Your task to perform on an android device: star an email in the gmail app Image 0: 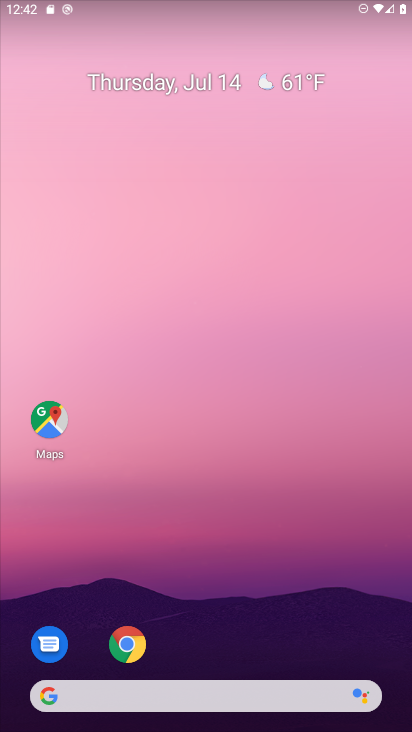
Step 0: drag from (302, 535) to (183, 46)
Your task to perform on an android device: star an email in the gmail app Image 1: 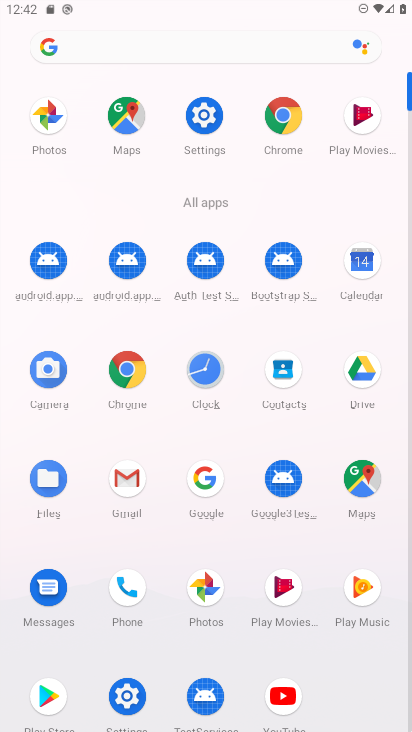
Step 1: click (124, 478)
Your task to perform on an android device: star an email in the gmail app Image 2: 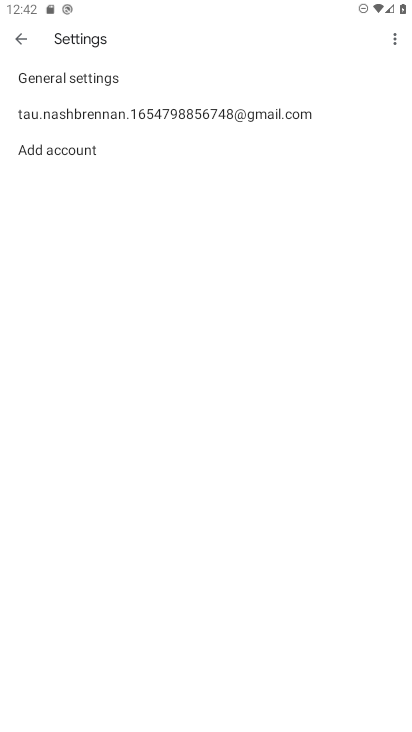
Step 2: click (18, 39)
Your task to perform on an android device: star an email in the gmail app Image 3: 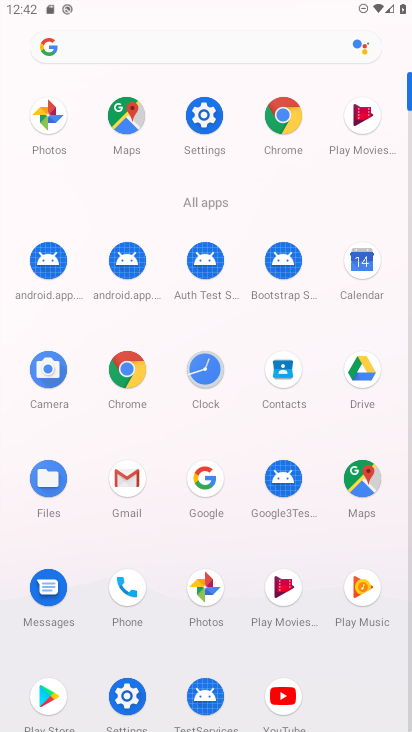
Step 3: click (140, 480)
Your task to perform on an android device: star an email in the gmail app Image 4: 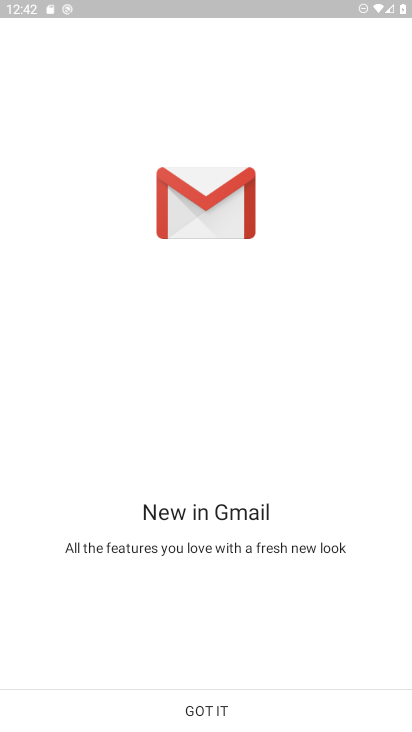
Step 4: click (257, 713)
Your task to perform on an android device: star an email in the gmail app Image 5: 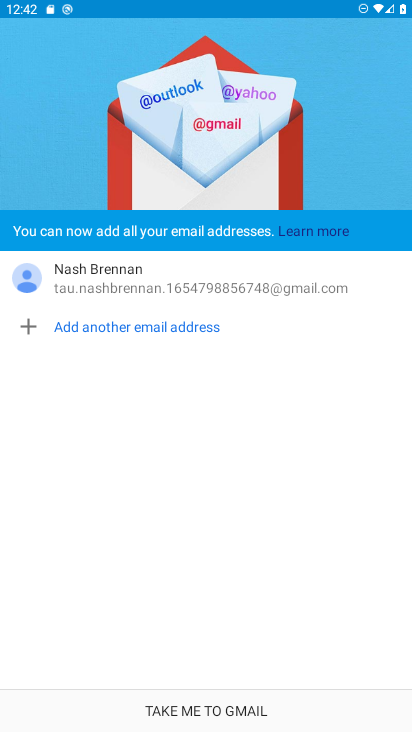
Step 5: click (258, 706)
Your task to perform on an android device: star an email in the gmail app Image 6: 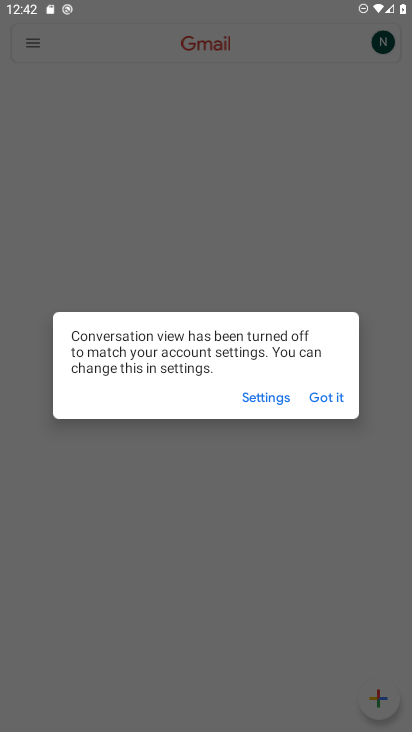
Step 6: click (325, 400)
Your task to perform on an android device: star an email in the gmail app Image 7: 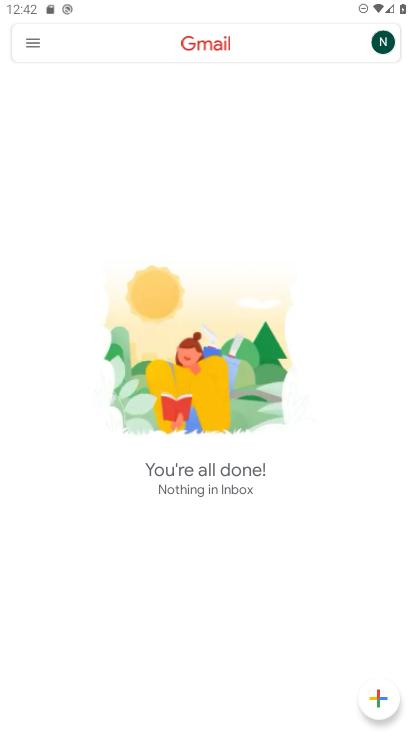
Step 7: click (33, 34)
Your task to perform on an android device: star an email in the gmail app Image 8: 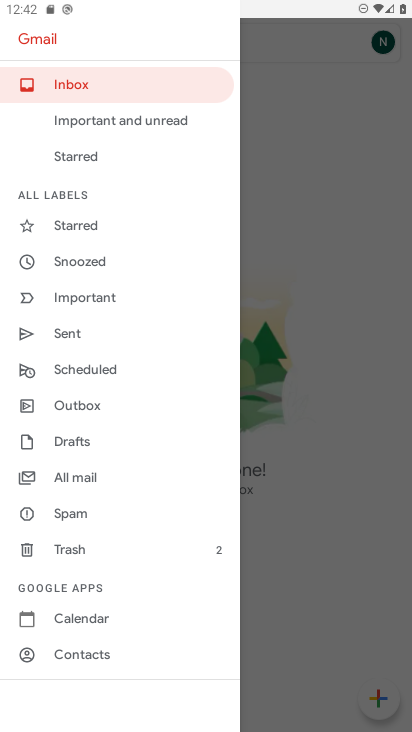
Step 8: click (92, 473)
Your task to perform on an android device: star an email in the gmail app Image 9: 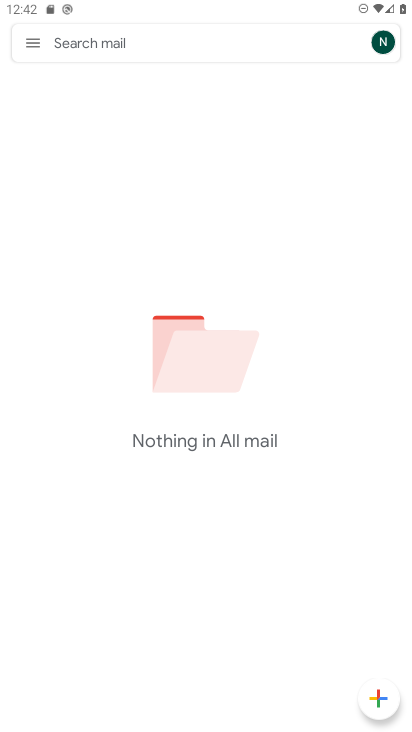
Step 9: task complete